Your task to perform on an android device: Go to settings Image 0: 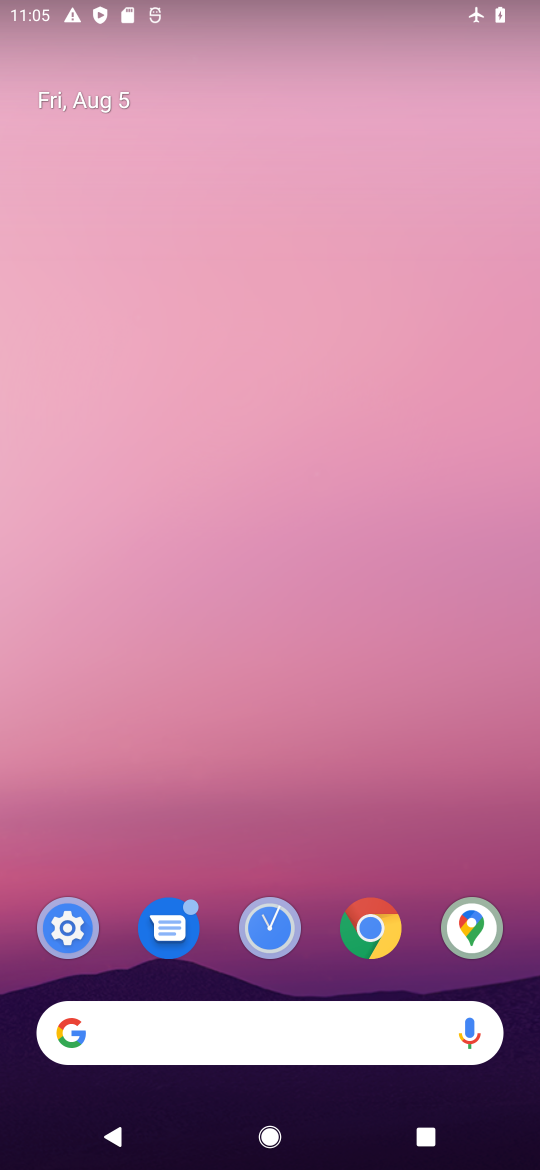
Step 0: drag from (255, 989) to (162, 124)
Your task to perform on an android device: Go to settings Image 1: 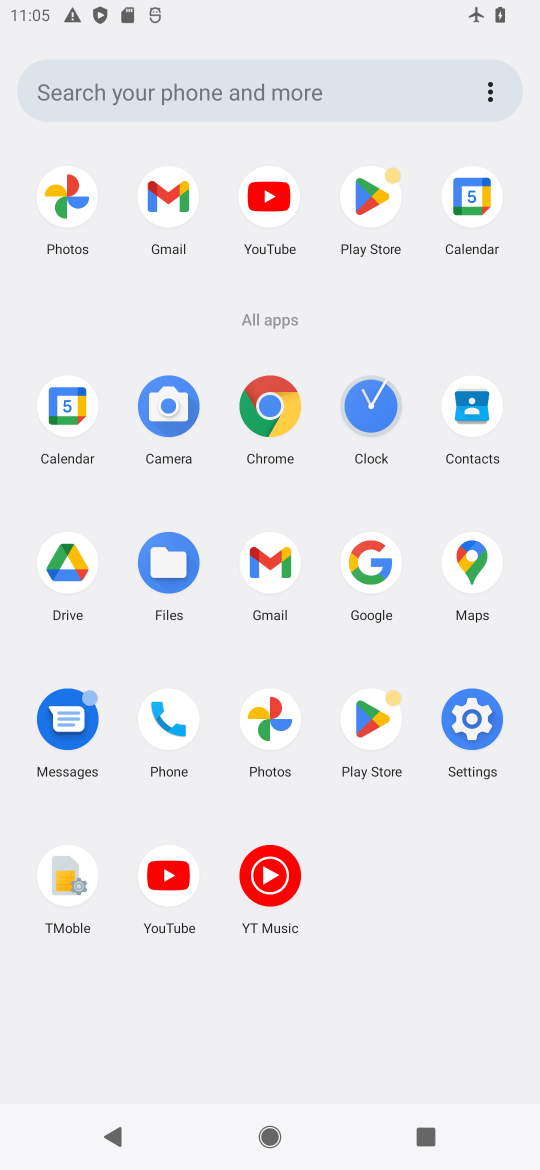
Step 1: click (472, 710)
Your task to perform on an android device: Go to settings Image 2: 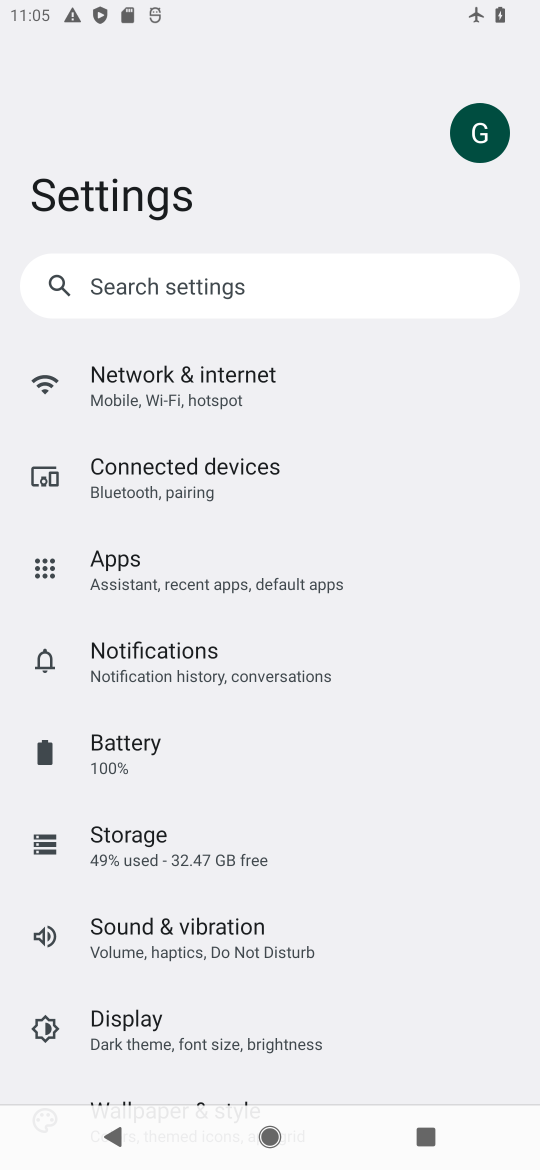
Step 2: task complete